Your task to perform on an android device: move a message to another label in the gmail app Image 0: 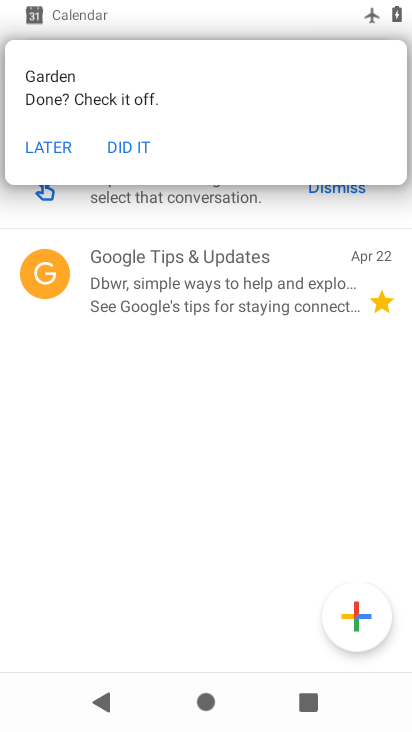
Step 0: press home button
Your task to perform on an android device: move a message to another label in the gmail app Image 1: 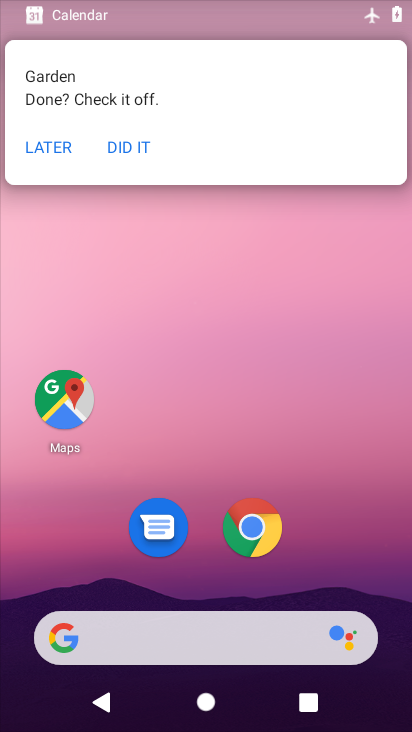
Step 1: click (50, 147)
Your task to perform on an android device: move a message to another label in the gmail app Image 2: 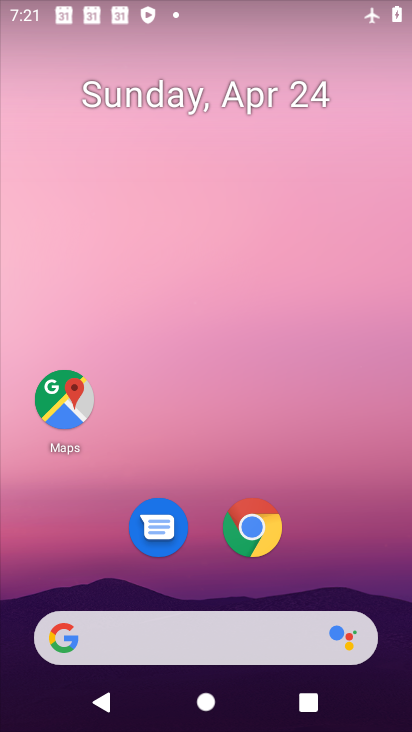
Step 2: drag from (347, 533) to (238, 17)
Your task to perform on an android device: move a message to another label in the gmail app Image 3: 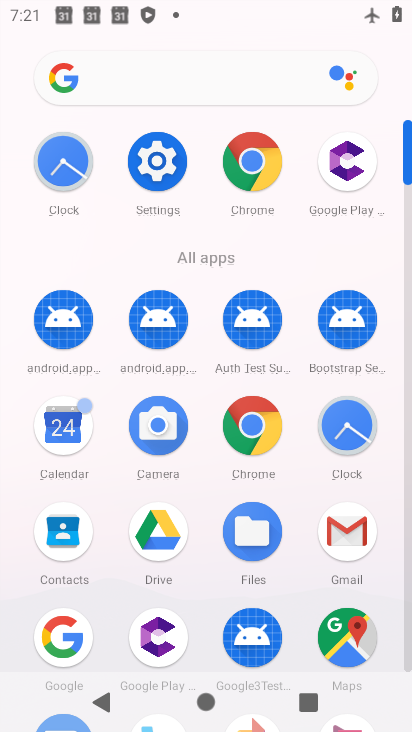
Step 3: click (354, 523)
Your task to perform on an android device: move a message to another label in the gmail app Image 4: 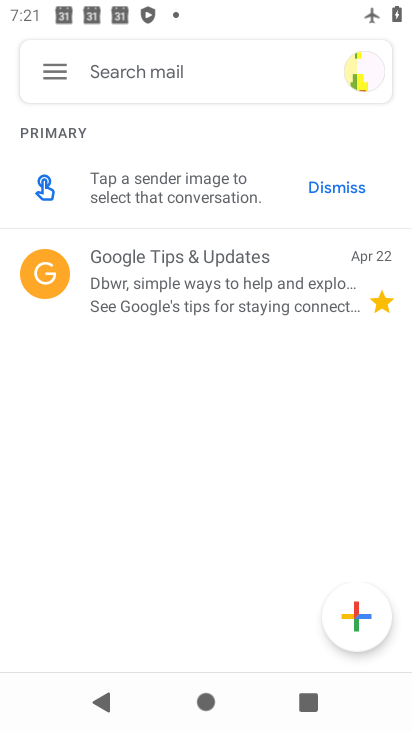
Step 4: click (64, 262)
Your task to perform on an android device: move a message to another label in the gmail app Image 5: 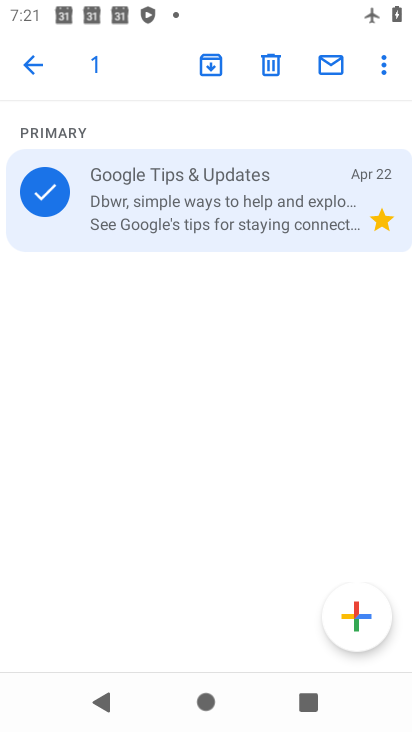
Step 5: click (211, 175)
Your task to perform on an android device: move a message to another label in the gmail app Image 6: 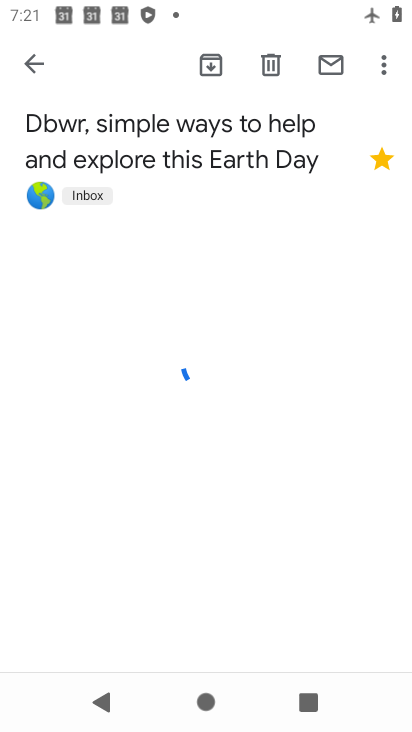
Step 6: click (388, 62)
Your task to perform on an android device: move a message to another label in the gmail app Image 7: 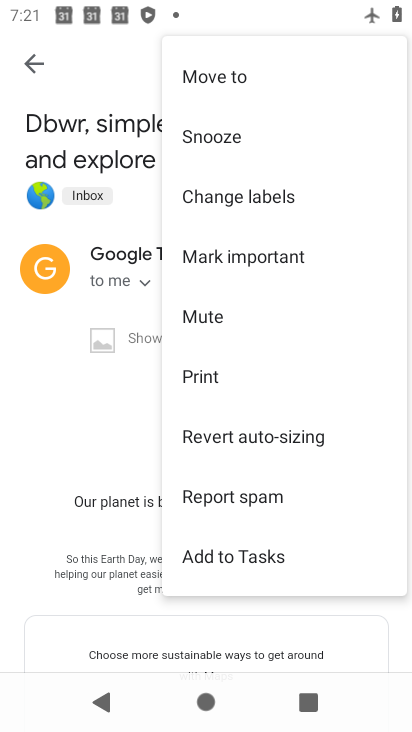
Step 7: click (254, 191)
Your task to perform on an android device: move a message to another label in the gmail app Image 8: 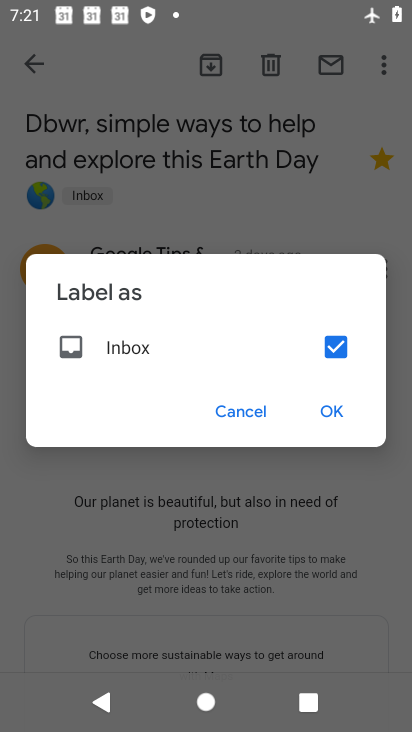
Step 8: task complete